Your task to perform on an android device: What's on my calendar tomorrow? Image 0: 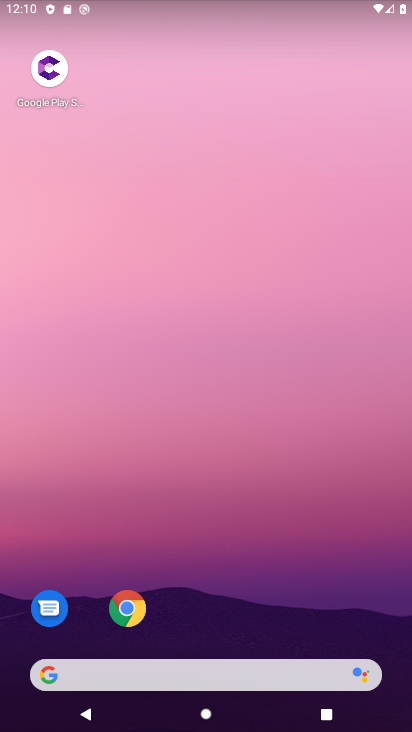
Step 0: drag from (264, 709) to (357, 28)
Your task to perform on an android device: What's on my calendar tomorrow? Image 1: 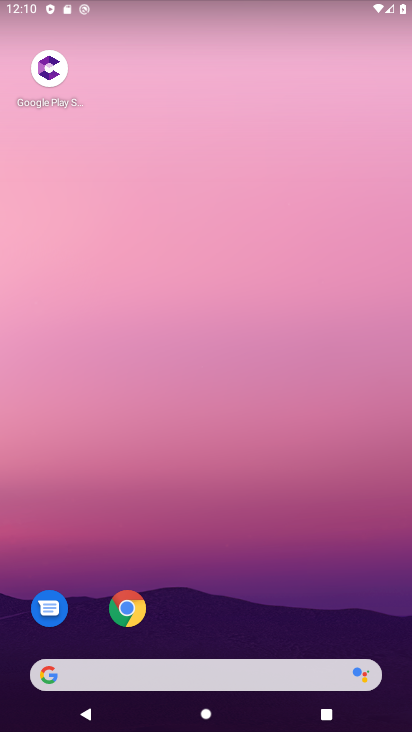
Step 1: drag from (157, 689) to (162, 13)
Your task to perform on an android device: What's on my calendar tomorrow? Image 2: 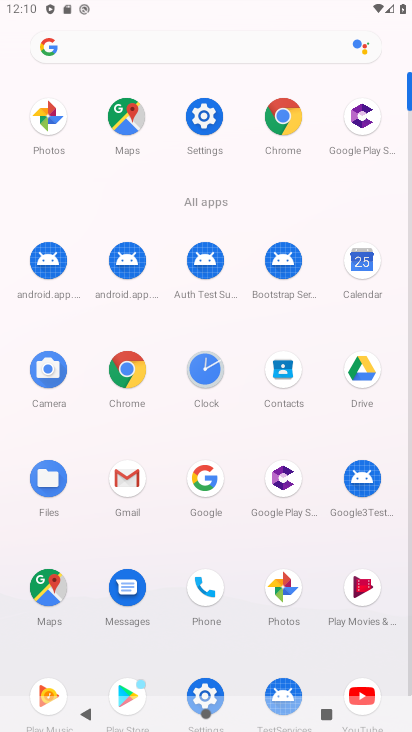
Step 2: click (368, 278)
Your task to perform on an android device: What's on my calendar tomorrow? Image 3: 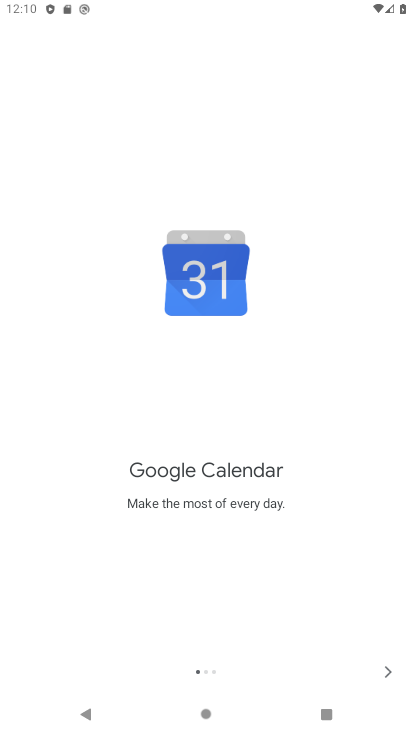
Step 3: click (389, 667)
Your task to perform on an android device: What's on my calendar tomorrow? Image 4: 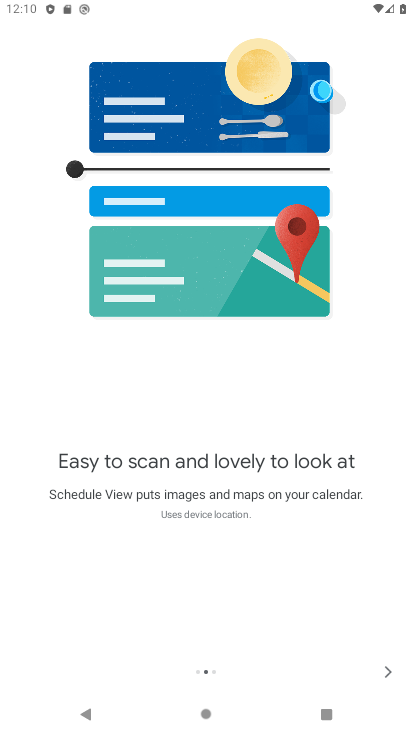
Step 4: click (388, 663)
Your task to perform on an android device: What's on my calendar tomorrow? Image 5: 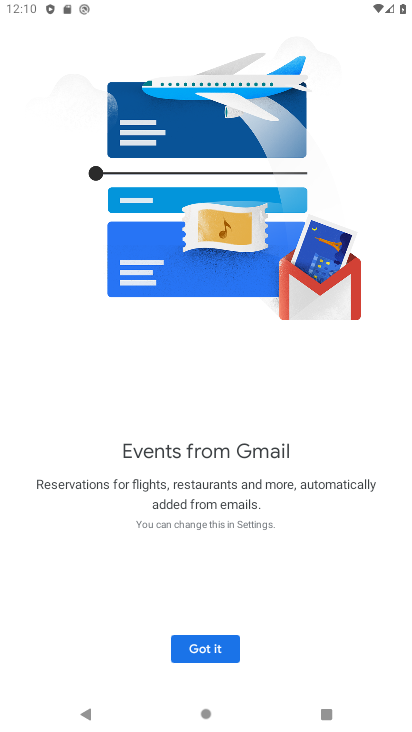
Step 5: click (193, 645)
Your task to perform on an android device: What's on my calendar tomorrow? Image 6: 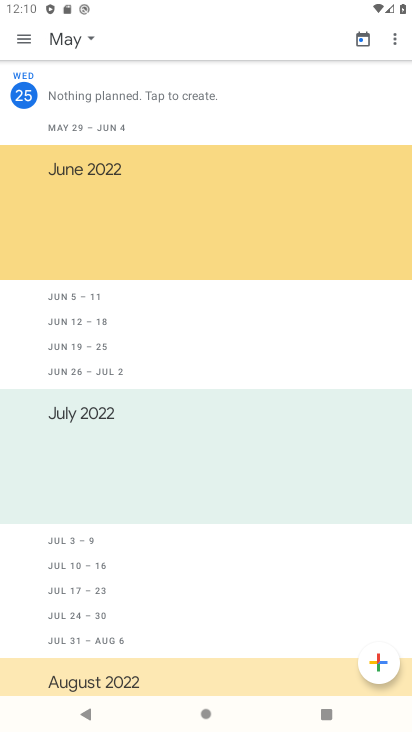
Step 6: task complete